Your task to perform on an android device: Go to wifi settings Image 0: 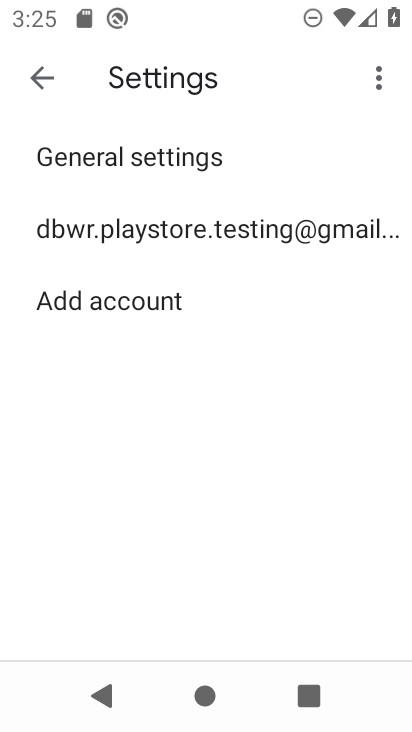
Step 0: press home button
Your task to perform on an android device: Go to wifi settings Image 1: 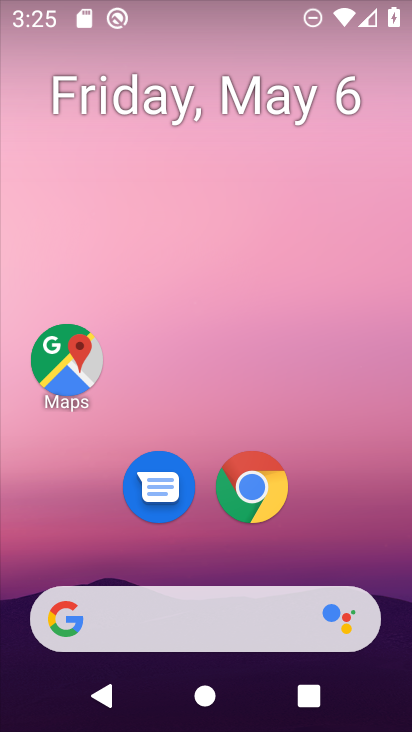
Step 1: drag from (322, 562) to (390, 20)
Your task to perform on an android device: Go to wifi settings Image 2: 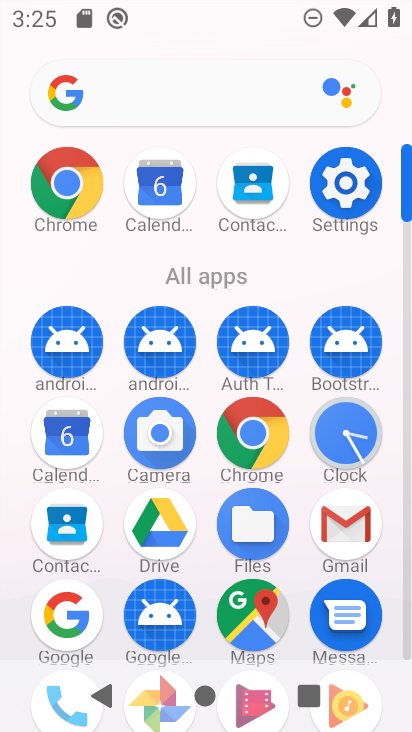
Step 2: click (351, 187)
Your task to perform on an android device: Go to wifi settings Image 3: 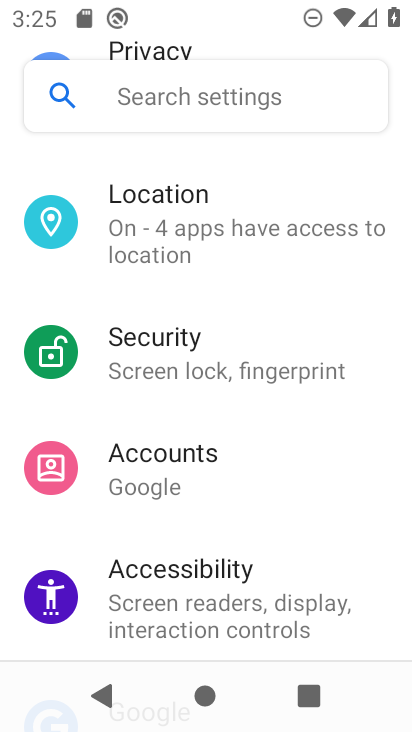
Step 3: drag from (336, 211) to (406, 363)
Your task to perform on an android device: Go to wifi settings Image 4: 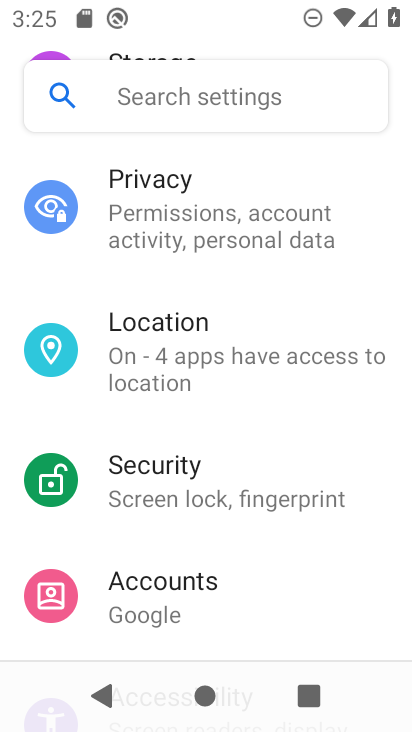
Step 4: drag from (328, 214) to (389, 474)
Your task to perform on an android device: Go to wifi settings Image 5: 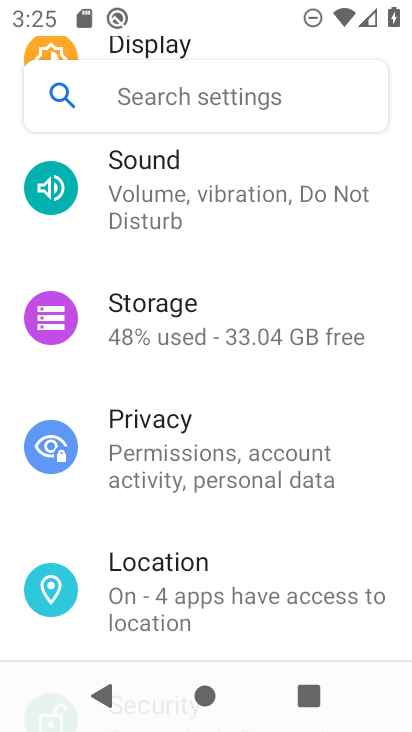
Step 5: drag from (286, 299) to (228, 520)
Your task to perform on an android device: Go to wifi settings Image 6: 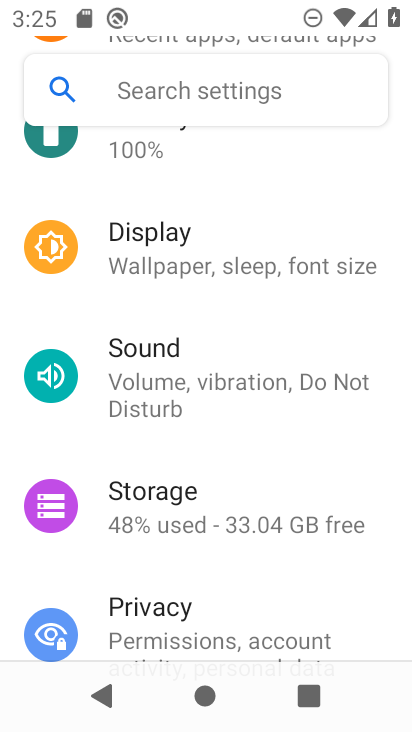
Step 6: drag from (172, 260) to (217, 431)
Your task to perform on an android device: Go to wifi settings Image 7: 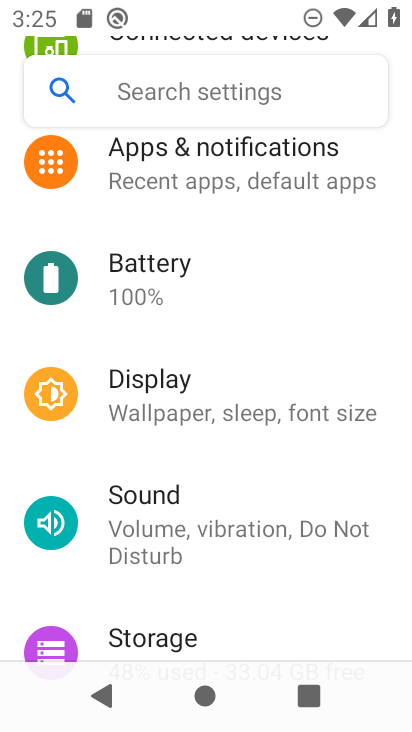
Step 7: drag from (221, 274) to (219, 457)
Your task to perform on an android device: Go to wifi settings Image 8: 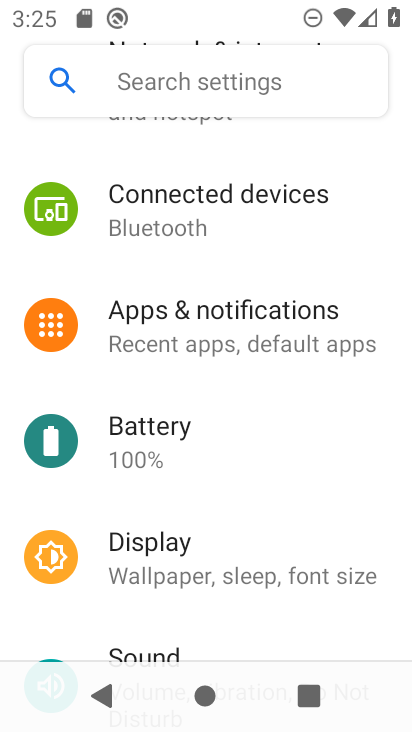
Step 8: drag from (265, 305) to (216, 486)
Your task to perform on an android device: Go to wifi settings Image 9: 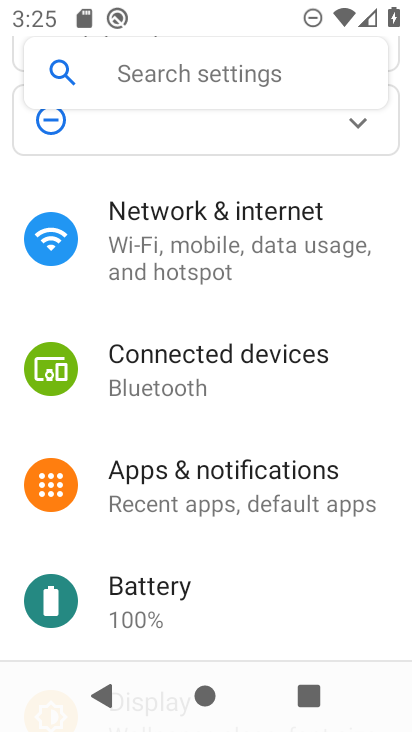
Step 9: drag from (242, 260) to (251, 581)
Your task to perform on an android device: Go to wifi settings Image 10: 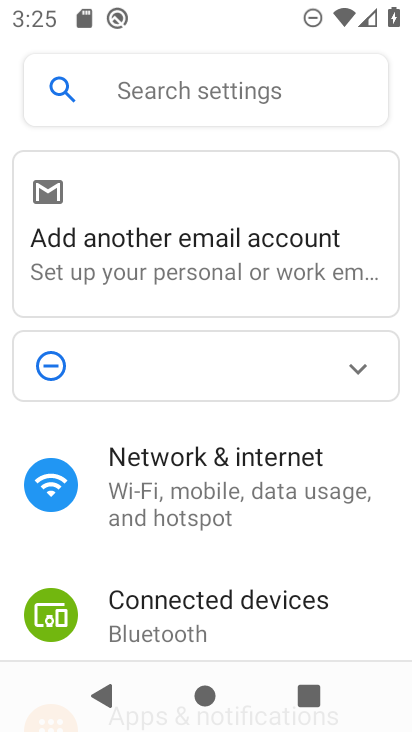
Step 10: click (256, 488)
Your task to perform on an android device: Go to wifi settings Image 11: 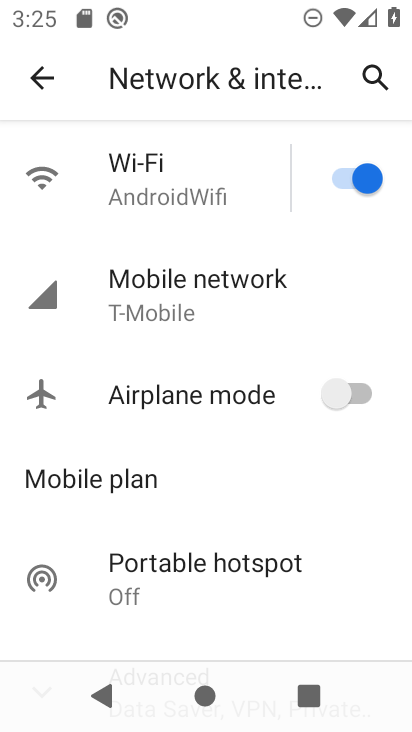
Step 11: click (85, 177)
Your task to perform on an android device: Go to wifi settings Image 12: 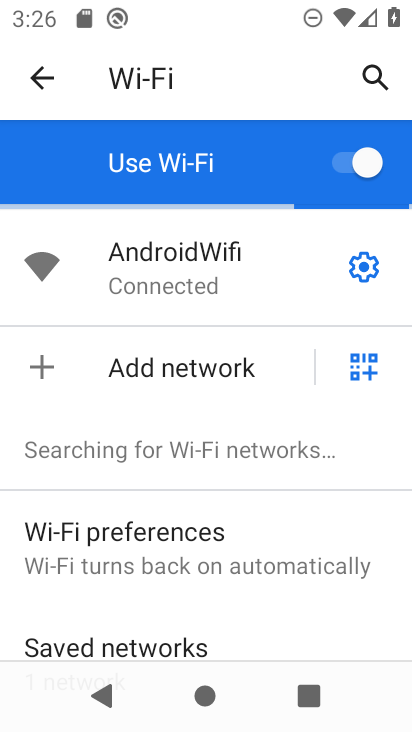
Step 12: task complete